Your task to perform on an android device: Go to battery settings Image 0: 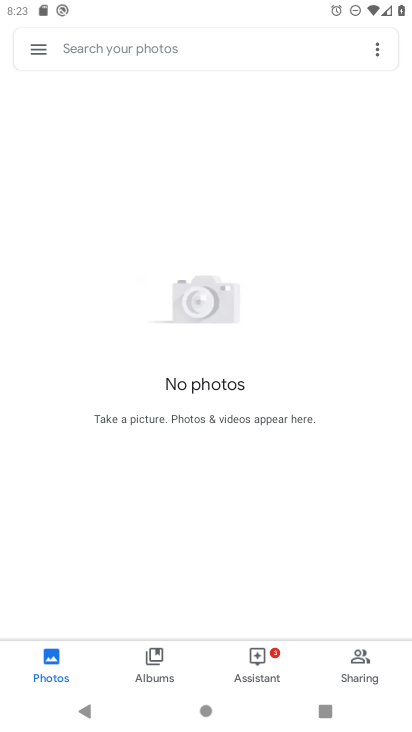
Step 0: press home button
Your task to perform on an android device: Go to battery settings Image 1: 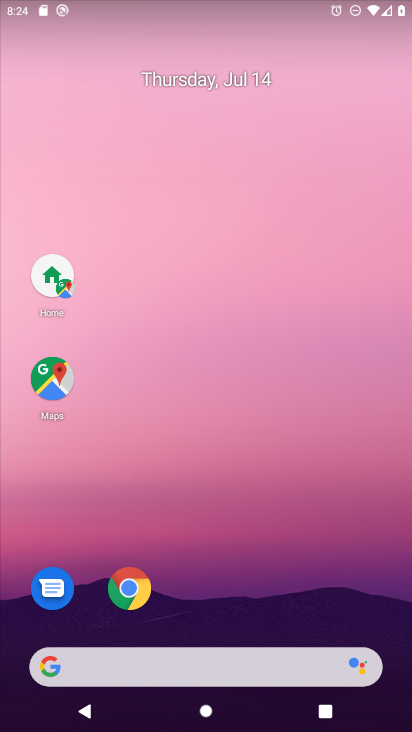
Step 1: drag from (16, 712) to (317, 34)
Your task to perform on an android device: Go to battery settings Image 2: 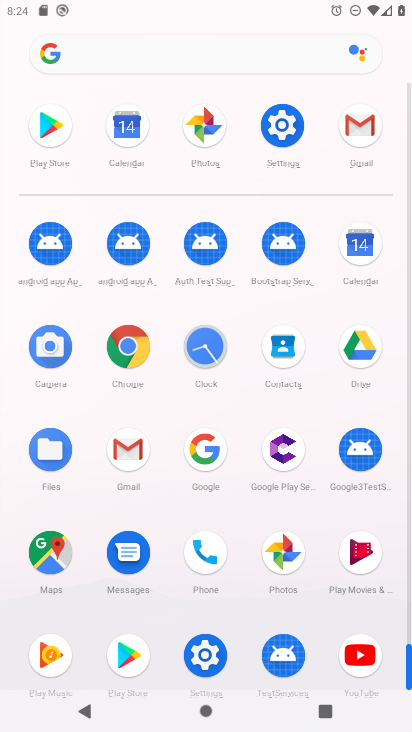
Step 2: click (204, 660)
Your task to perform on an android device: Go to battery settings Image 3: 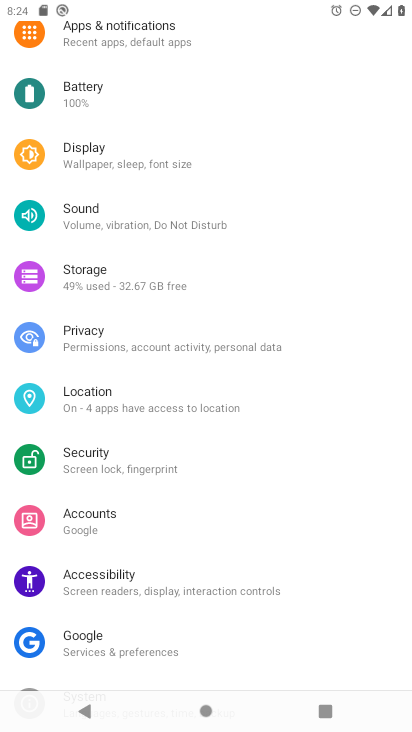
Step 3: click (112, 74)
Your task to perform on an android device: Go to battery settings Image 4: 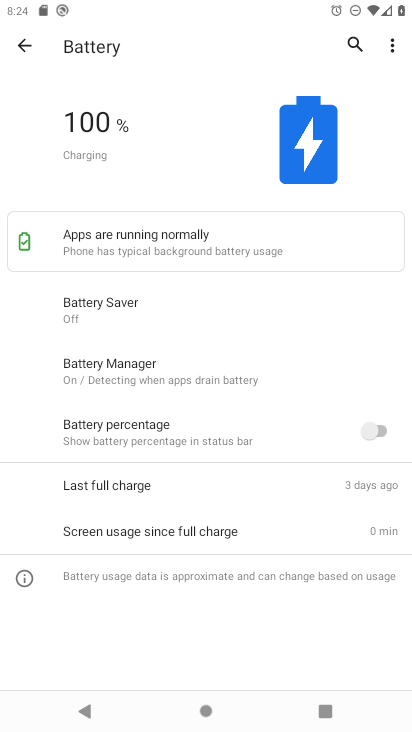
Step 4: task complete